Your task to perform on an android device: Search for Italian restaurants on Maps Image 0: 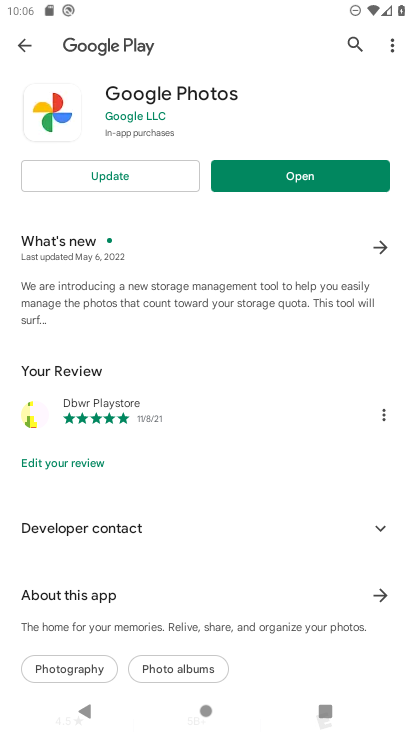
Step 0: press home button
Your task to perform on an android device: Search for Italian restaurants on Maps Image 1: 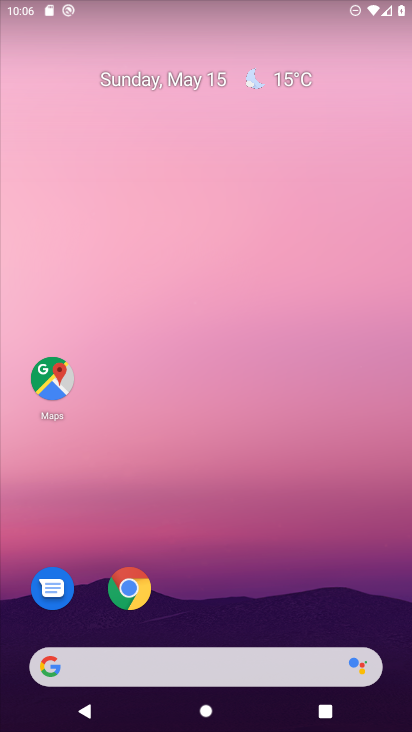
Step 1: click (44, 378)
Your task to perform on an android device: Search for Italian restaurants on Maps Image 2: 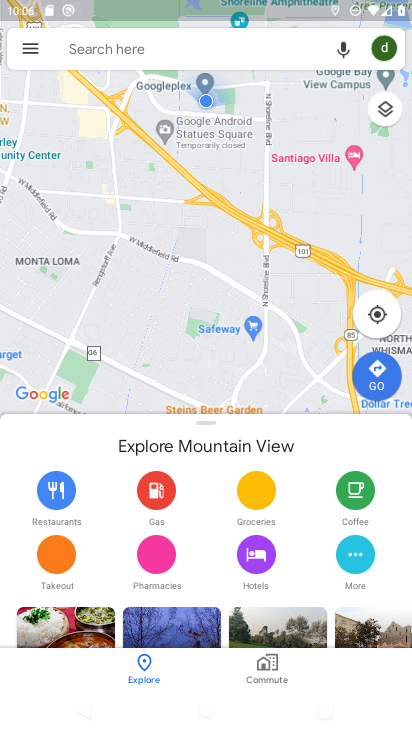
Step 2: click (138, 48)
Your task to perform on an android device: Search for Italian restaurants on Maps Image 3: 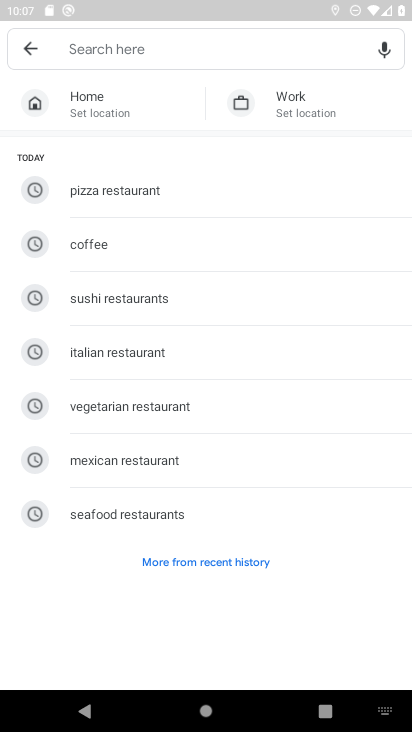
Step 3: type "italian restaurants"
Your task to perform on an android device: Search for Italian restaurants on Maps Image 4: 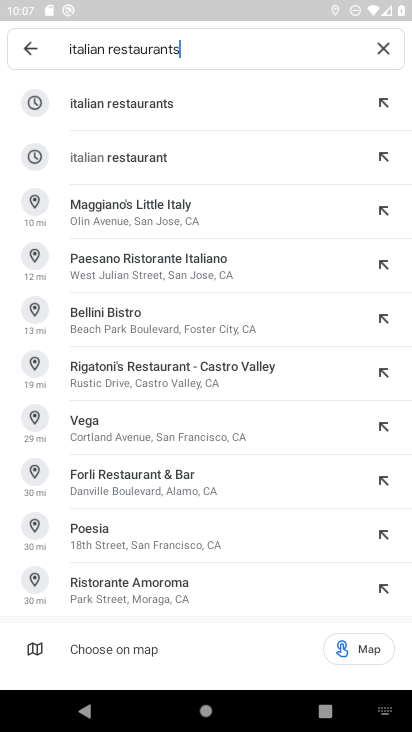
Step 4: click (165, 106)
Your task to perform on an android device: Search for Italian restaurants on Maps Image 5: 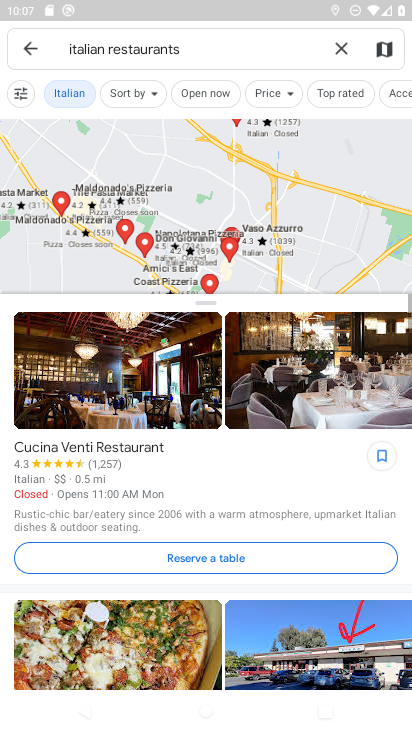
Step 5: task complete